Your task to perform on an android device: all mails in gmail Image 0: 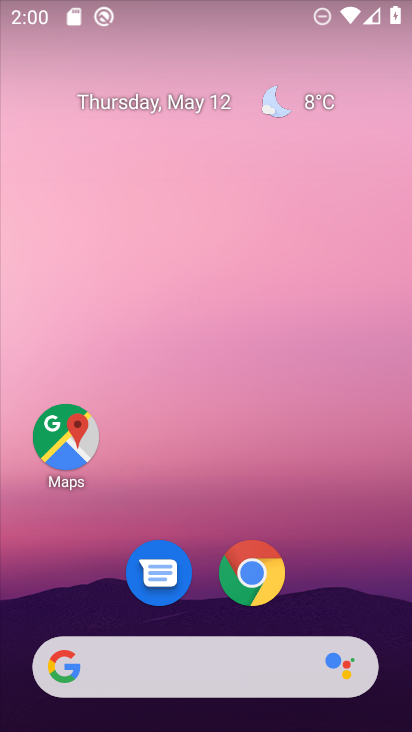
Step 0: drag from (391, 655) to (104, 86)
Your task to perform on an android device: all mails in gmail Image 1: 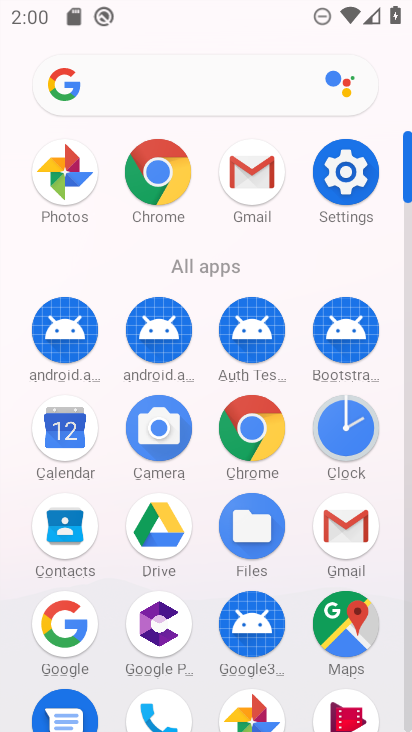
Step 1: click (365, 528)
Your task to perform on an android device: all mails in gmail Image 2: 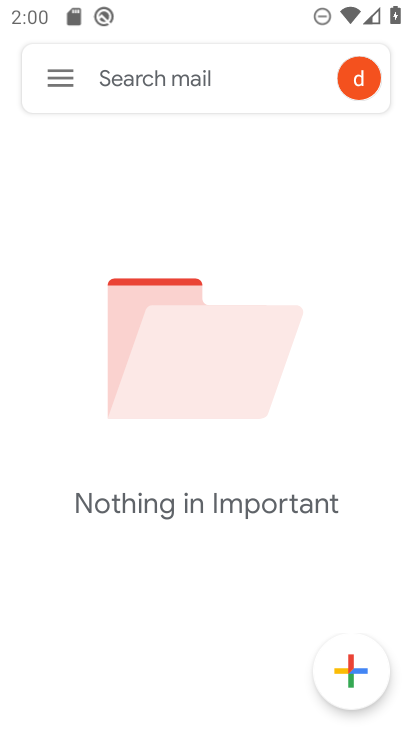
Step 2: click (65, 91)
Your task to perform on an android device: all mails in gmail Image 3: 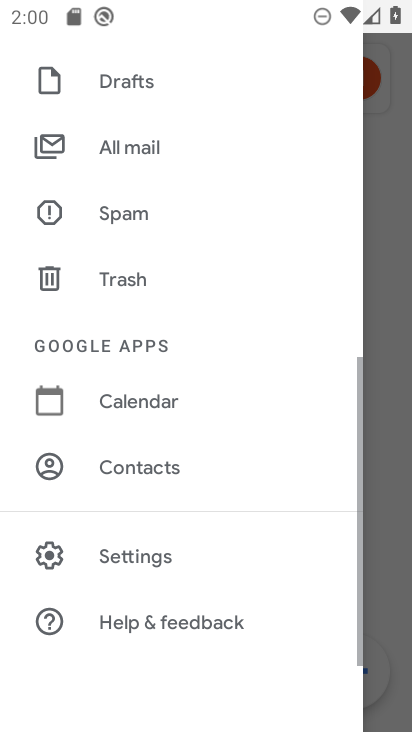
Step 3: click (107, 152)
Your task to perform on an android device: all mails in gmail Image 4: 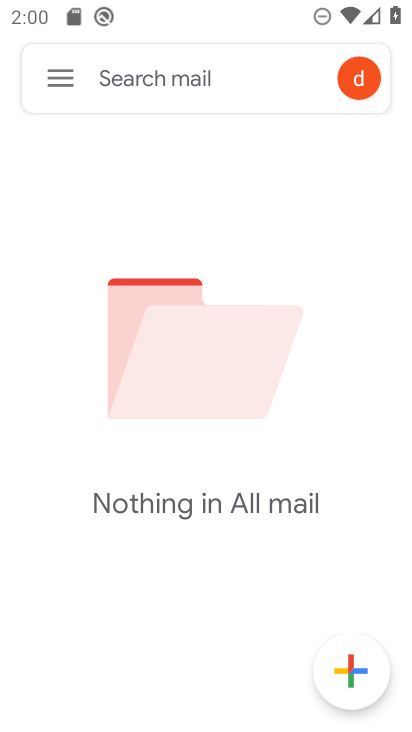
Step 4: task complete